Your task to perform on an android device: delete browsing data in the chrome app Image 0: 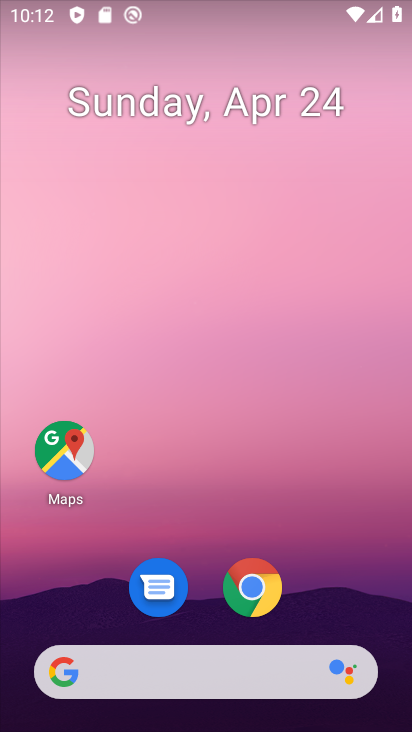
Step 0: drag from (329, 561) to (293, 297)
Your task to perform on an android device: delete browsing data in the chrome app Image 1: 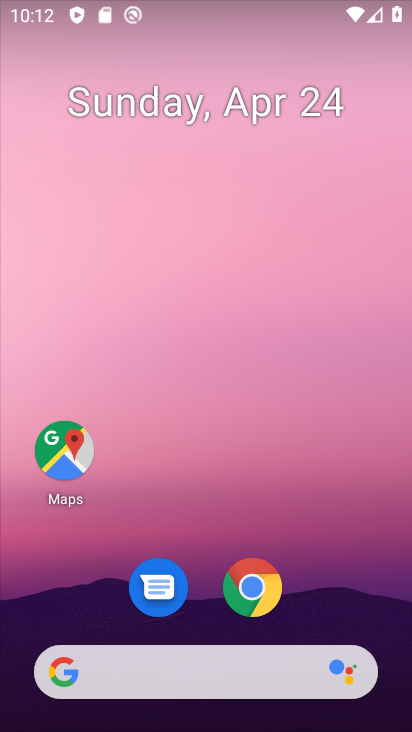
Step 1: click (243, 590)
Your task to perform on an android device: delete browsing data in the chrome app Image 2: 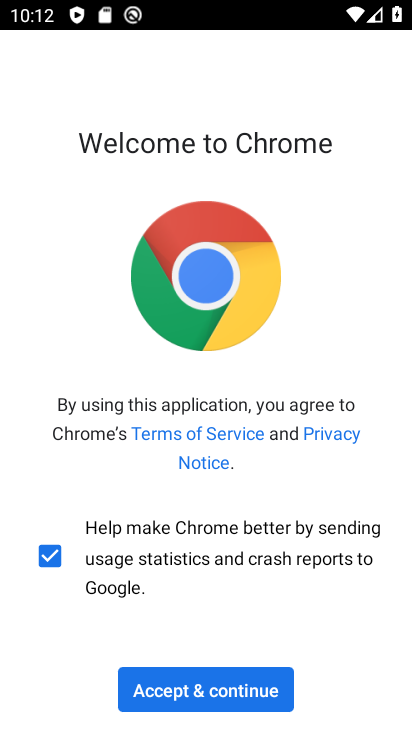
Step 2: click (238, 681)
Your task to perform on an android device: delete browsing data in the chrome app Image 3: 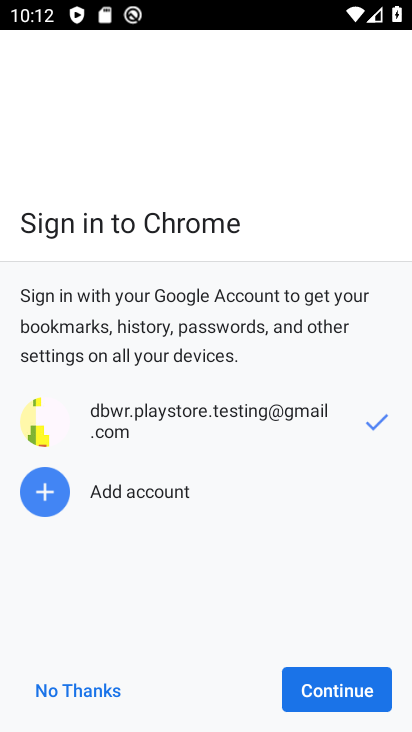
Step 3: click (352, 702)
Your task to perform on an android device: delete browsing data in the chrome app Image 4: 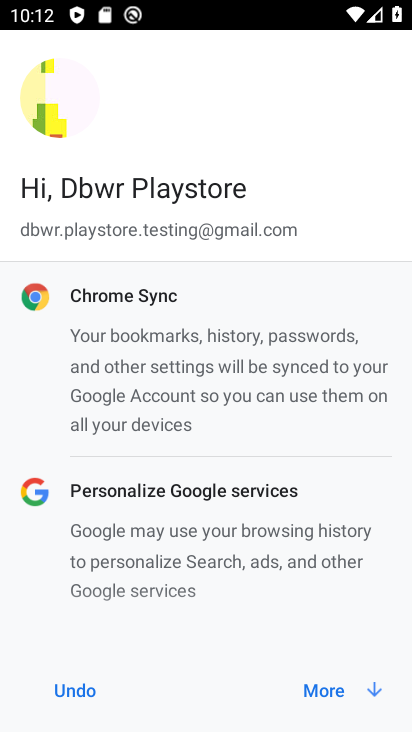
Step 4: click (352, 700)
Your task to perform on an android device: delete browsing data in the chrome app Image 5: 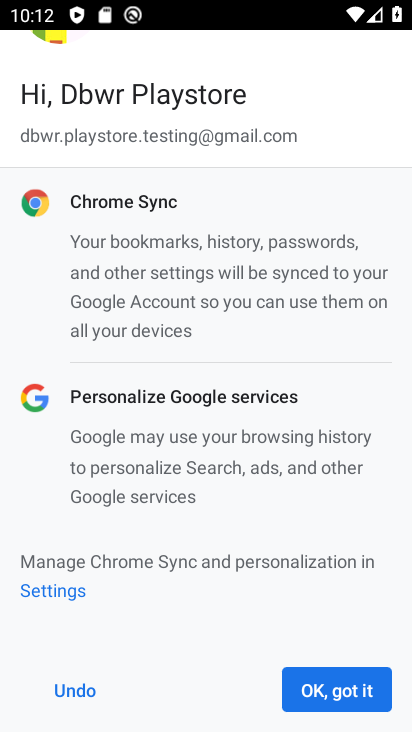
Step 5: click (353, 695)
Your task to perform on an android device: delete browsing data in the chrome app Image 6: 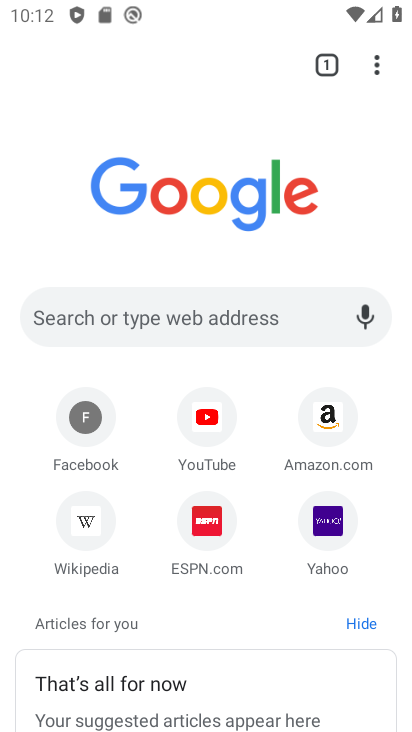
Step 6: click (393, 69)
Your task to perform on an android device: delete browsing data in the chrome app Image 7: 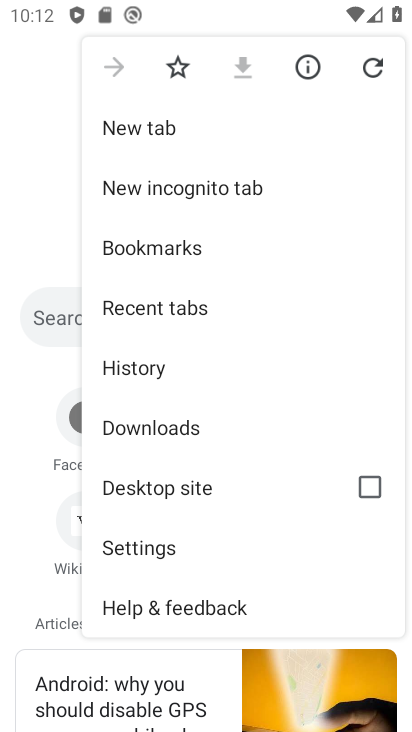
Step 7: click (159, 364)
Your task to perform on an android device: delete browsing data in the chrome app Image 8: 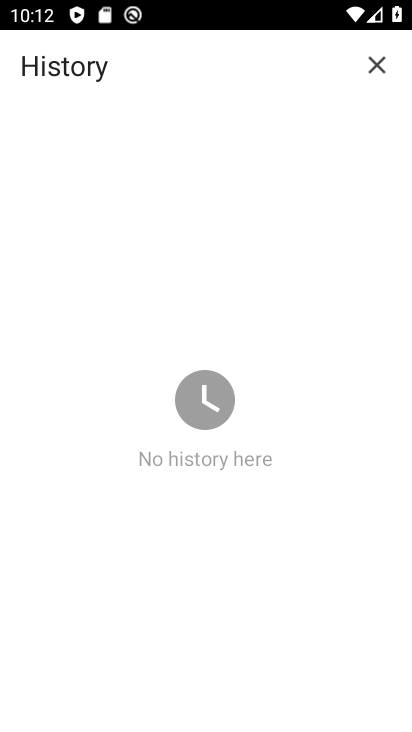
Step 8: task complete